Your task to perform on an android device: turn off picture-in-picture Image 0: 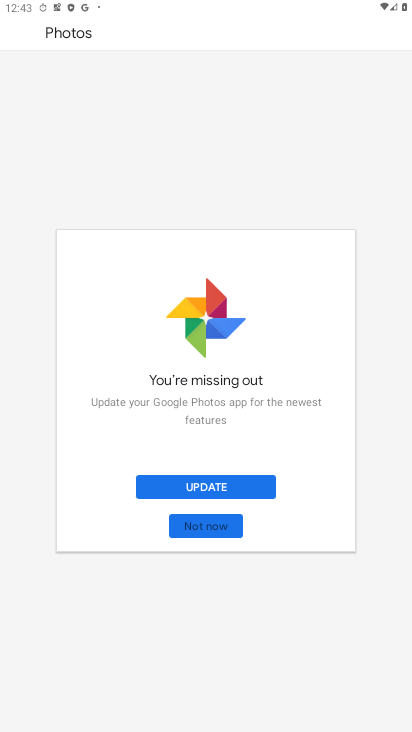
Step 0: press home button
Your task to perform on an android device: turn off picture-in-picture Image 1: 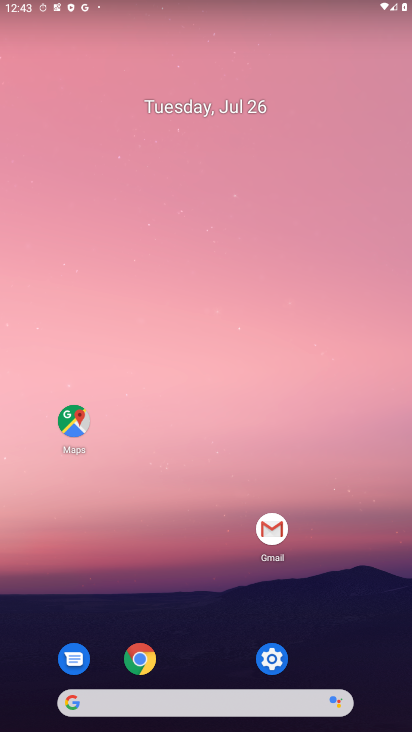
Step 1: drag from (284, 713) to (231, 102)
Your task to perform on an android device: turn off picture-in-picture Image 2: 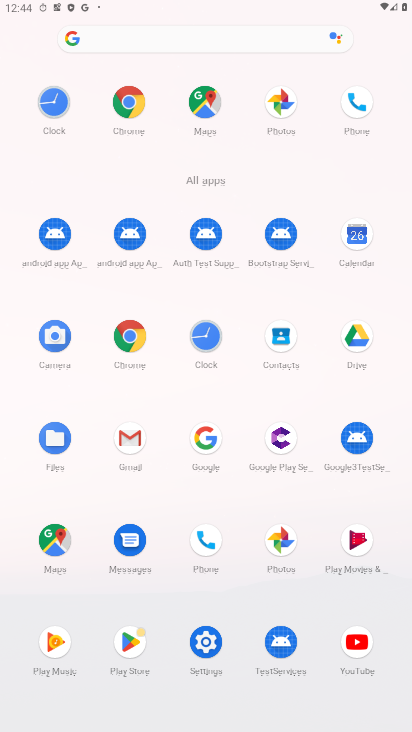
Step 2: click (343, 640)
Your task to perform on an android device: turn off picture-in-picture Image 3: 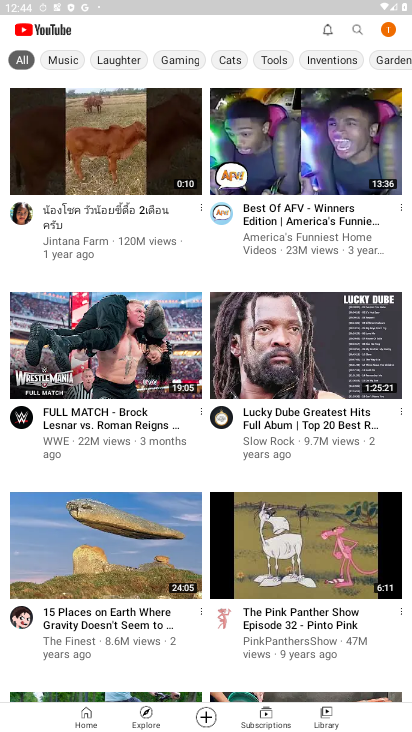
Step 3: click (388, 22)
Your task to perform on an android device: turn off picture-in-picture Image 4: 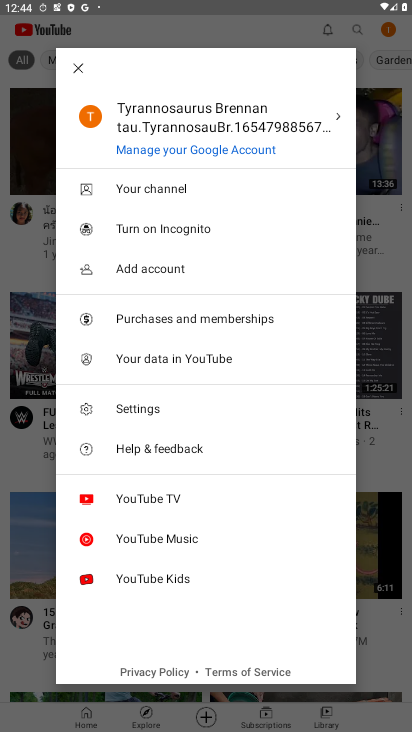
Step 4: click (144, 194)
Your task to perform on an android device: turn off picture-in-picture Image 5: 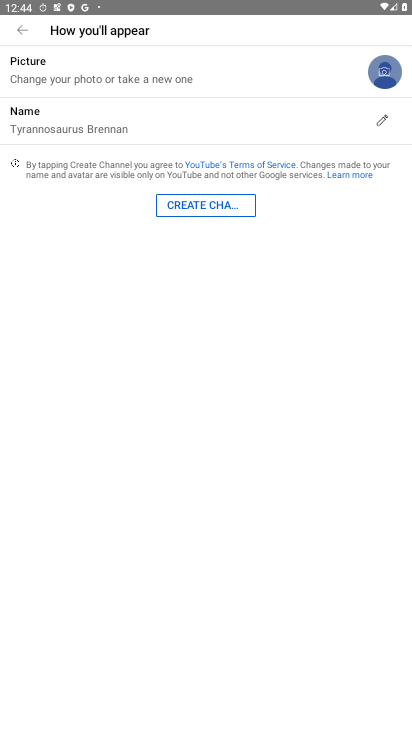
Step 5: click (13, 39)
Your task to perform on an android device: turn off picture-in-picture Image 6: 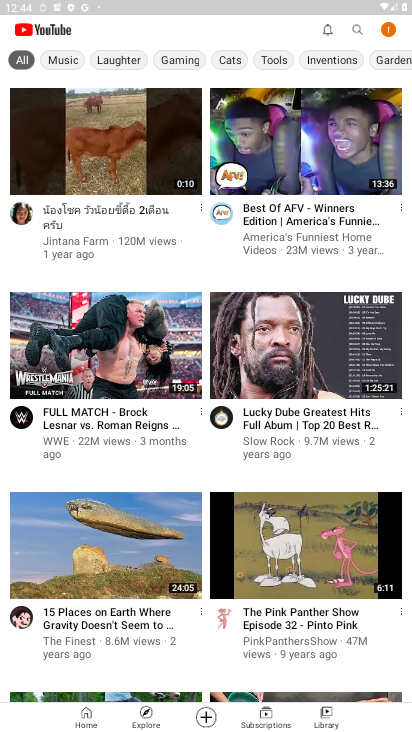
Step 6: click (378, 25)
Your task to perform on an android device: turn off picture-in-picture Image 7: 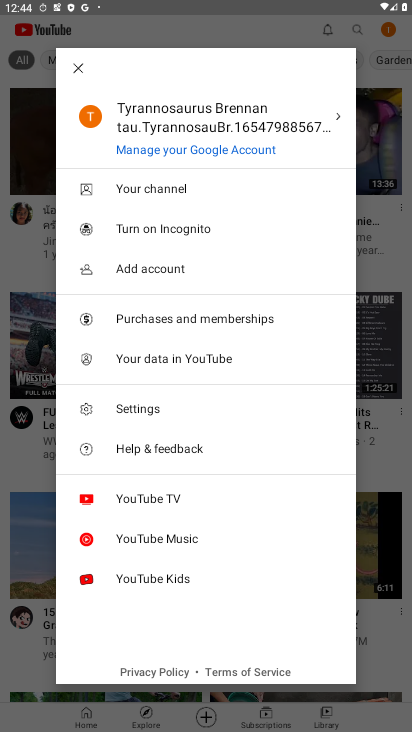
Step 7: click (134, 417)
Your task to perform on an android device: turn off picture-in-picture Image 8: 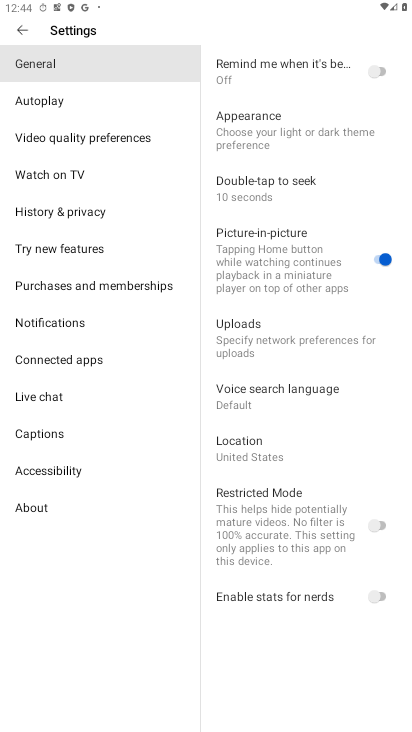
Step 8: click (321, 264)
Your task to perform on an android device: turn off picture-in-picture Image 9: 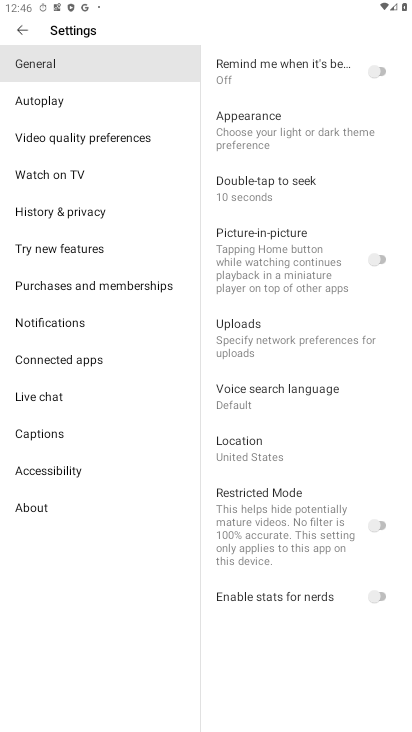
Step 9: task complete